Your task to perform on an android device: turn vacation reply on in the gmail app Image 0: 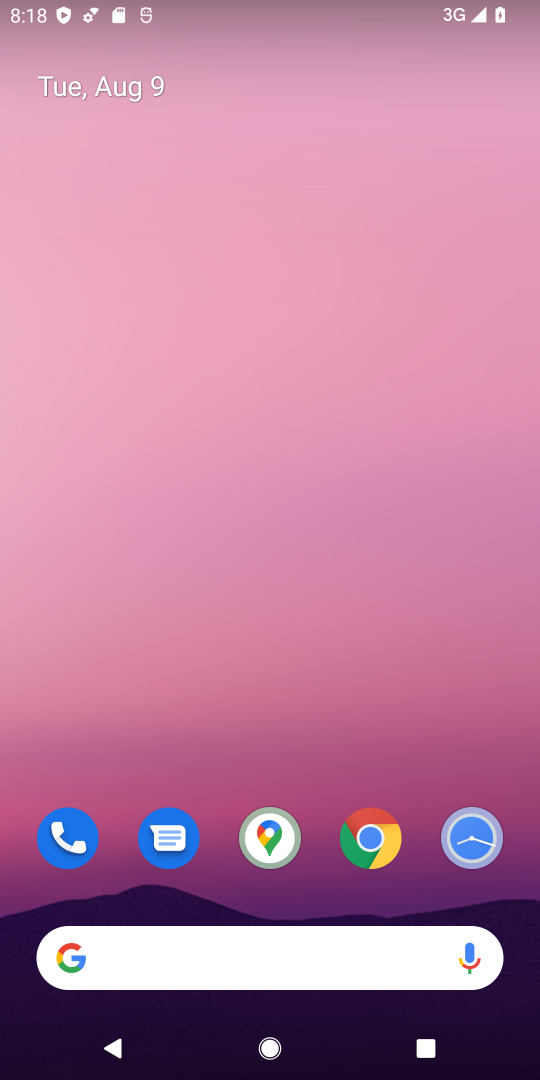
Step 0: drag from (240, 939) to (366, 107)
Your task to perform on an android device: turn vacation reply on in the gmail app Image 1: 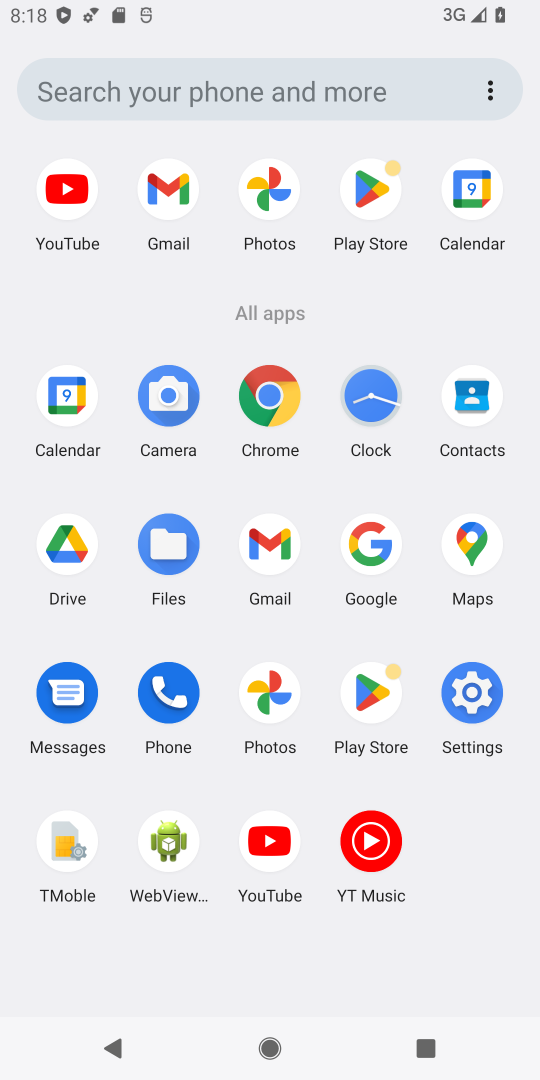
Step 1: click (280, 551)
Your task to perform on an android device: turn vacation reply on in the gmail app Image 2: 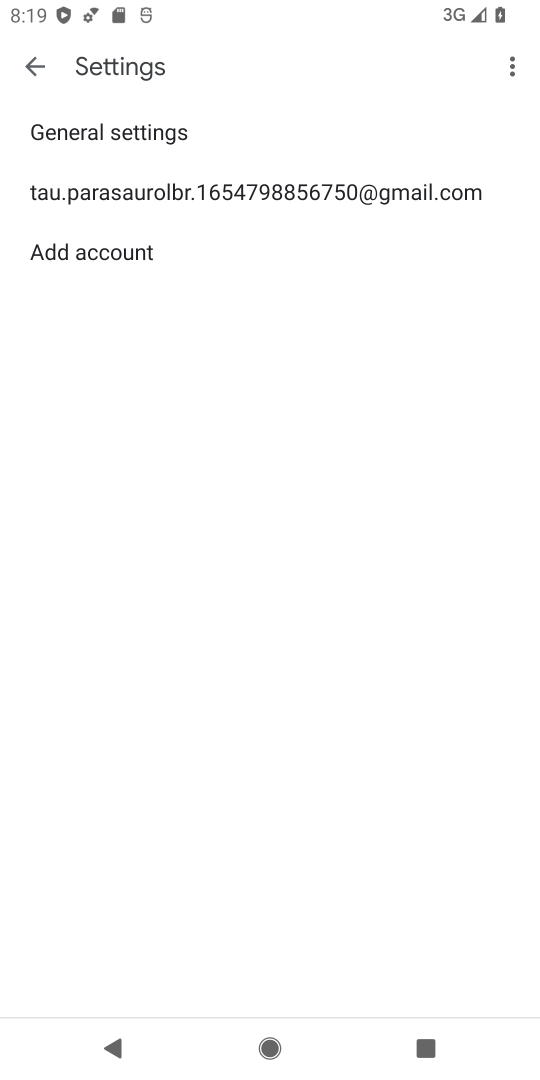
Step 2: click (177, 197)
Your task to perform on an android device: turn vacation reply on in the gmail app Image 3: 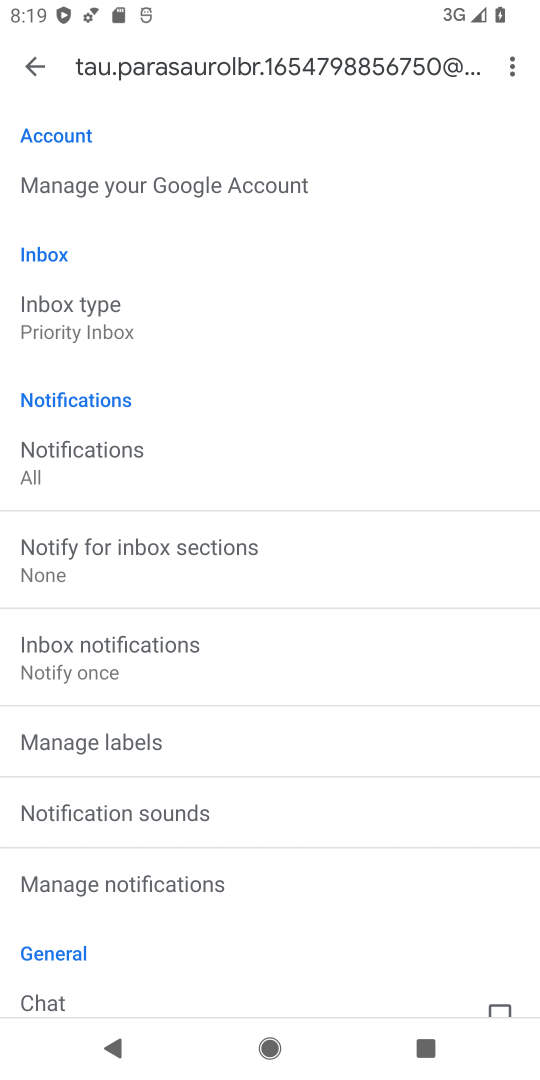
Step 3: drag from (277, 814) to (303, 33)
Your task to perform on an android device: turn vacation reply on in the gmail app Image 4: 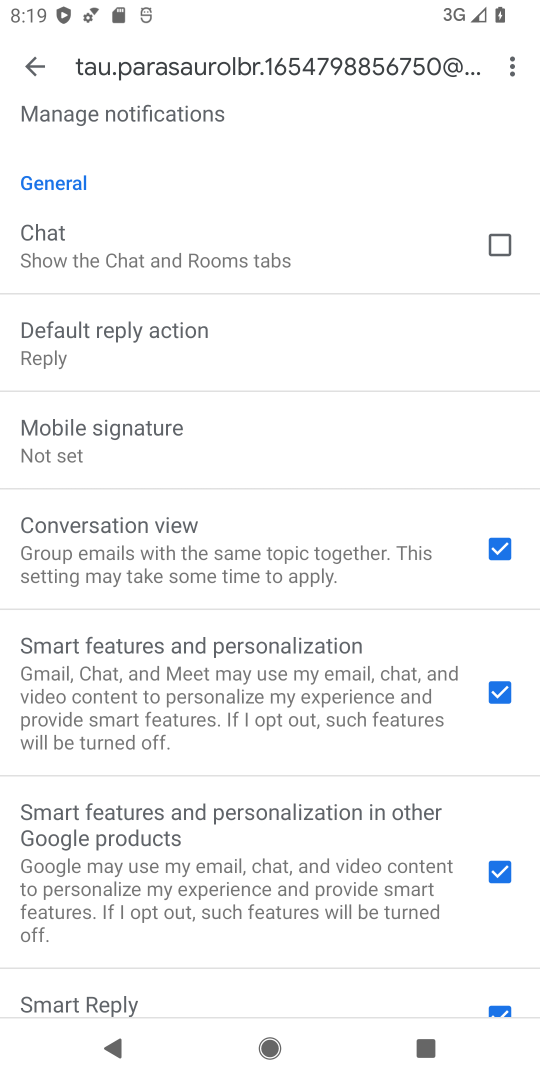
Step 4: drag from (259, 813) to (273, 328)
Your task to perform on an android device: turn vacation reply on in the gmail app Image 5: 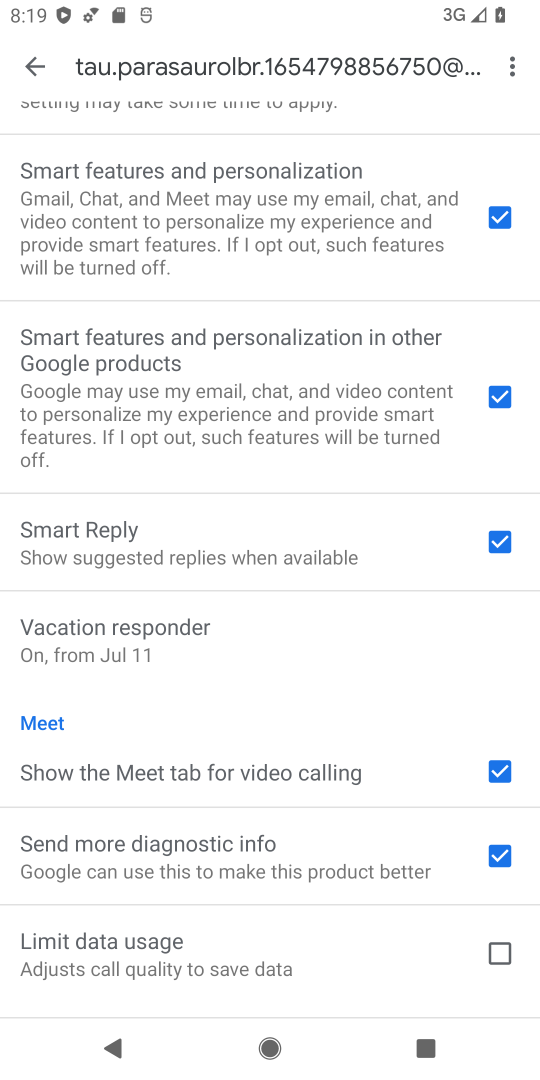
Step 5: click (225, 630)
Your task to perform on an android device: turn vacation reply on in the gmail app Image 6: 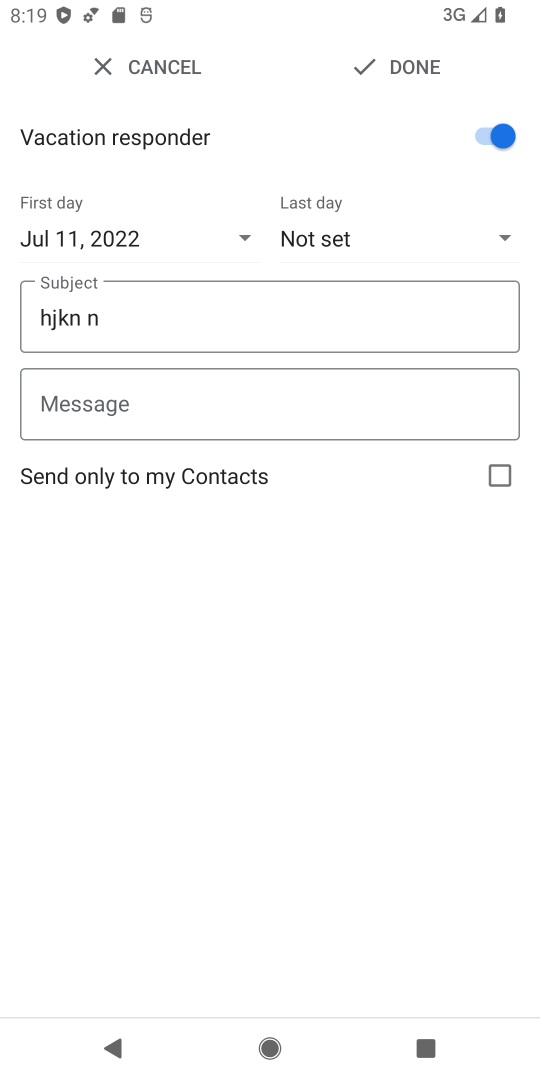
Step 6: task complete